Your task to perform on an android device: What's the weather going to be this weekend? Image 0: 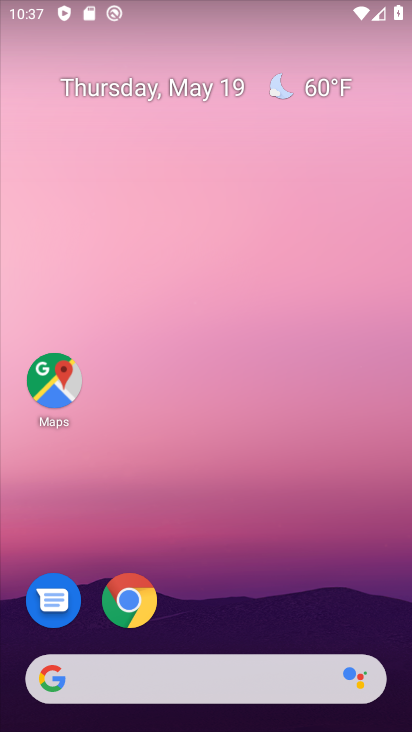
Step 0: click (276, 690)
Your task to perform on an android device: What's the weather going to be this weekend? Image 1: 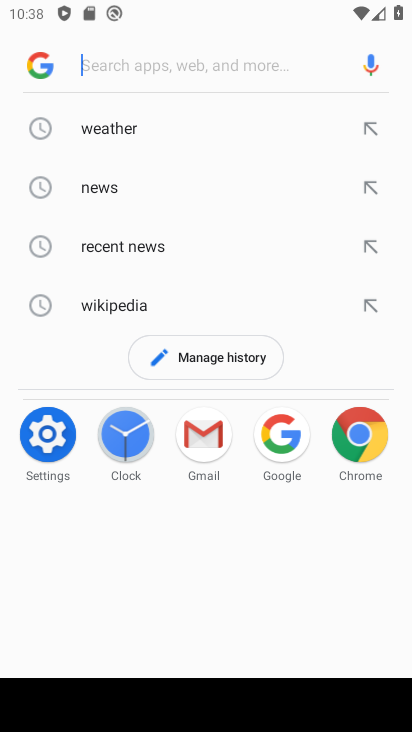
Step 1: click (138, 148)
Your task to perform on an android device: What's the weather going to be this weekend? Image 2: 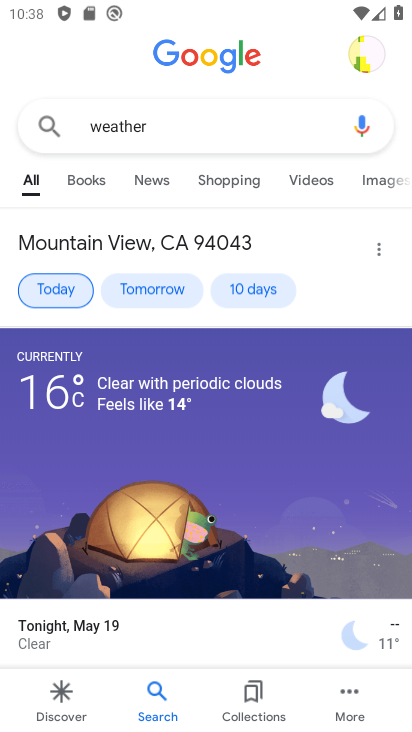
Step 2: click (280, 287)
Your task to perform on an android device: What's the weather going to be this weekend? Image 3: 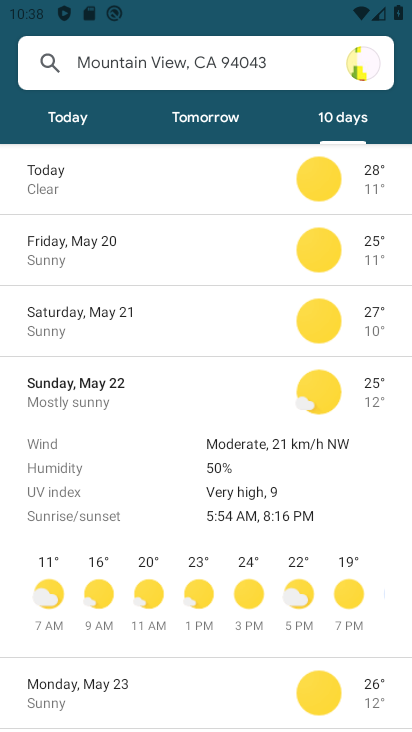
Step 3: task complete